Your task to perform on an android device: Open Youtube and go to the subscriptions tab Image 0: 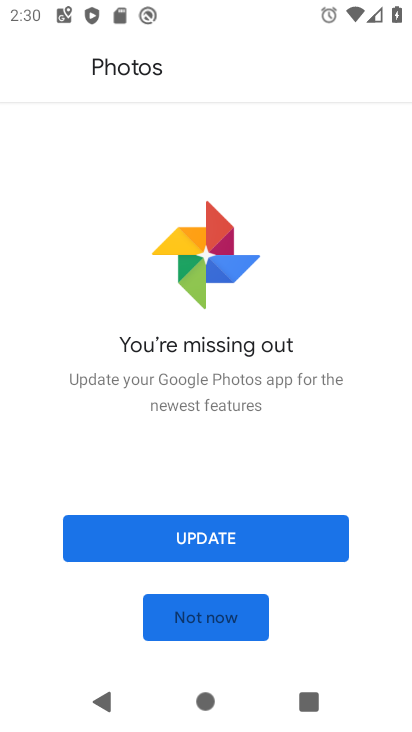
Step 0: press home button
Your task to perform on an android device: Open Youtube and go to the subscriptions tab Image 1: 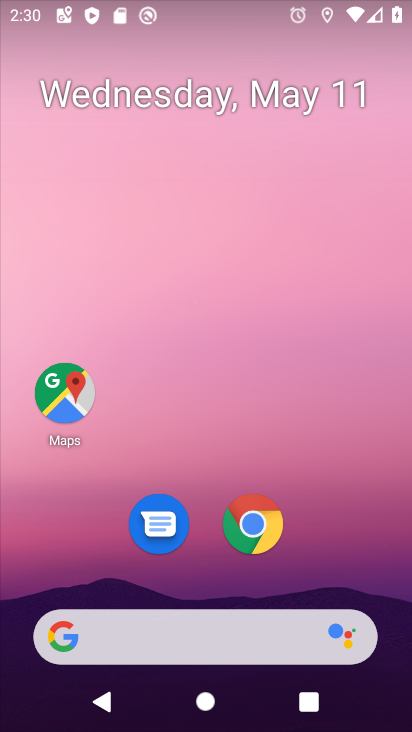
Step 1: drag from (202, 559) to (223, 86)
Your task to perform on an android device: Open Youtube and go to the subscriptions tab Image 2: 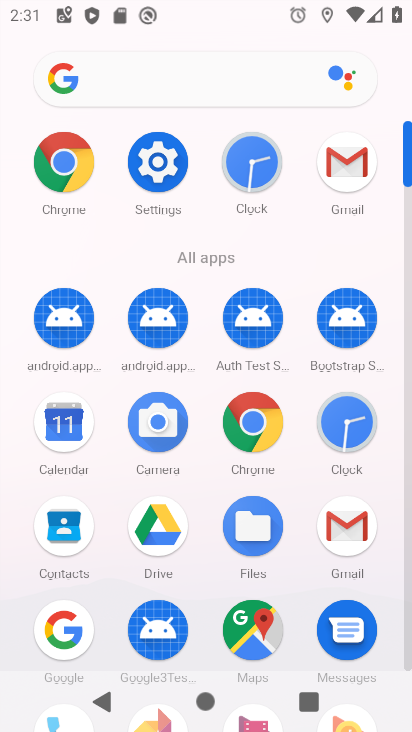
Step 2: drag from (200, 499) to (218, 142)
Your task to perform on an android device: Open Youtube and go to the subscriptions tab Image 3: 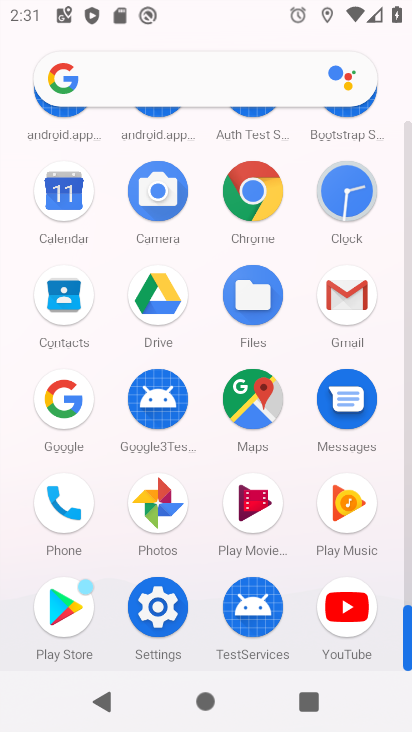
Step 3: click (339, 608)
Your task to perform on an android device: Open Youtube and go to the subscriptions tab Image 4: 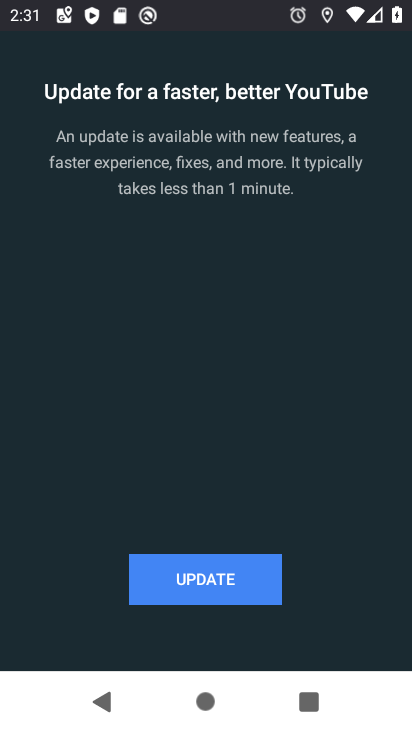
Step 4: click (261, 584)
Your task to perform on an android device: Open Youtube and go to the subscriptions tab Image 5: 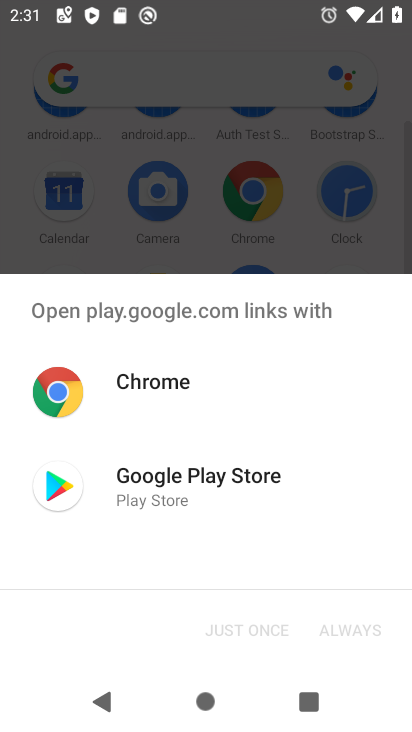
Step 5: click (138, 471)
Your task to perform on an android device: Open Youtube and go to the subscriptions tab Image 6: 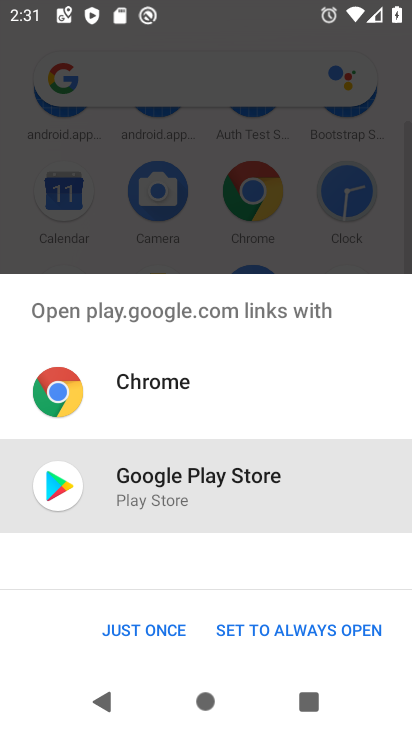
Step 6: click (160, 629)
Your task to perform on an android device: Open Youtube and go to the subscriptions tab Image 7: 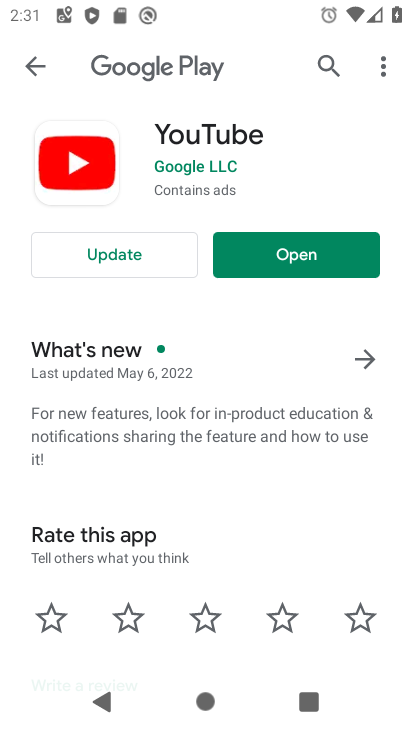
Step 7: click (162, 253)
Your task to perform on an android device: Open Youtube and go to the subscriptions tab Image 8: 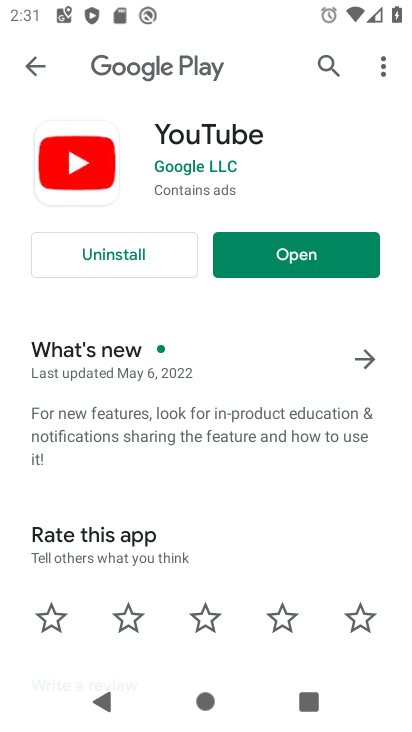
Step 8: click (337, 258)
Your task to perform on an android device: Open Youtube and go to the subscriptions tab Image 9: 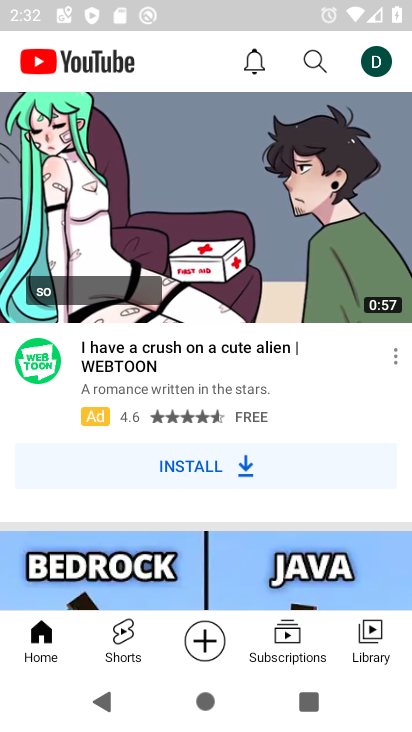
Step 9: click (299, 645)
Your task to perform on an android device: Open Youtube and go to the subscriptions tab Image 10: 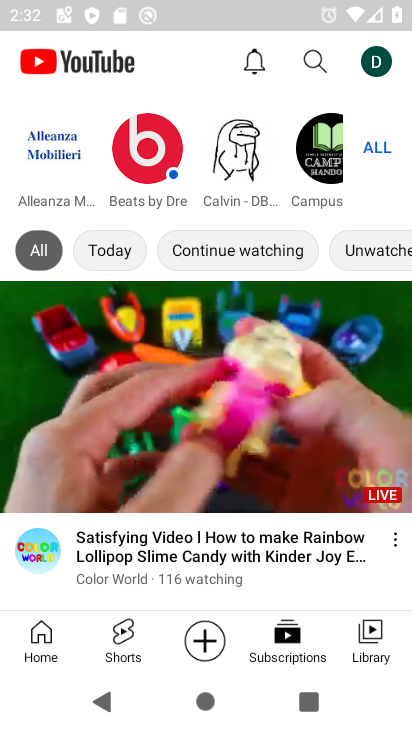
Step 10: task complete